Your task to perform on an android device: change your default location settings in chrome Image 0: 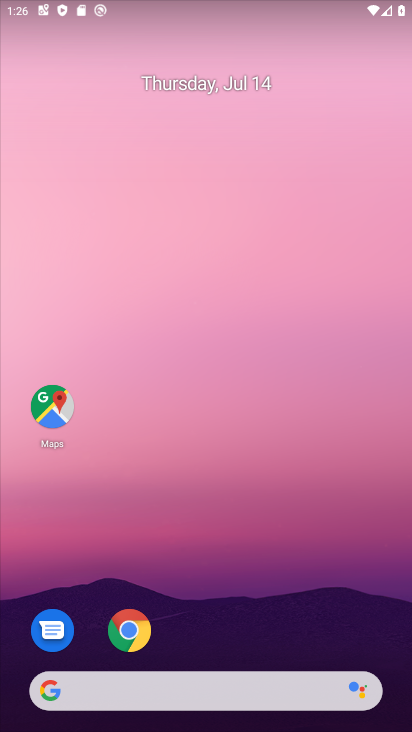
Step 0: click (138, 628)
Your task to perform on an android device: change your default location settings in chrome Image 1: 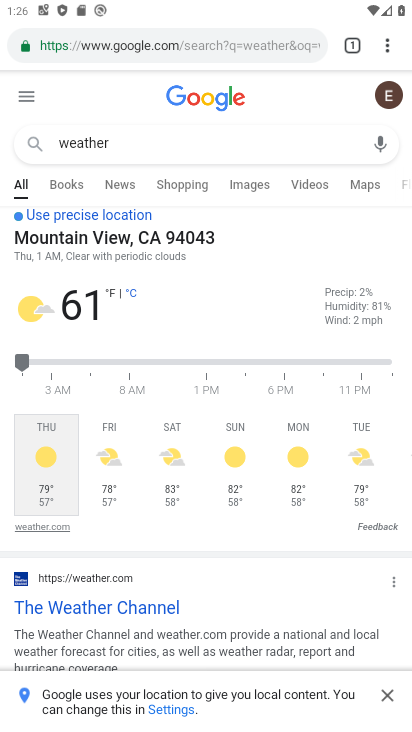
Step 1: drag from (385, 55) to (233, 502)
Your task to perform on an android device: change your default location settings in chrome Image 2: 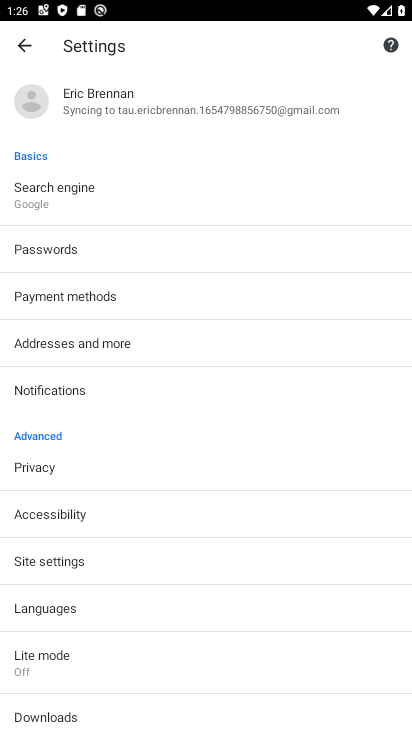
Step 2: click (85, 558)
Your task to perform on an android device: change your default location settings in chrome Image 3: 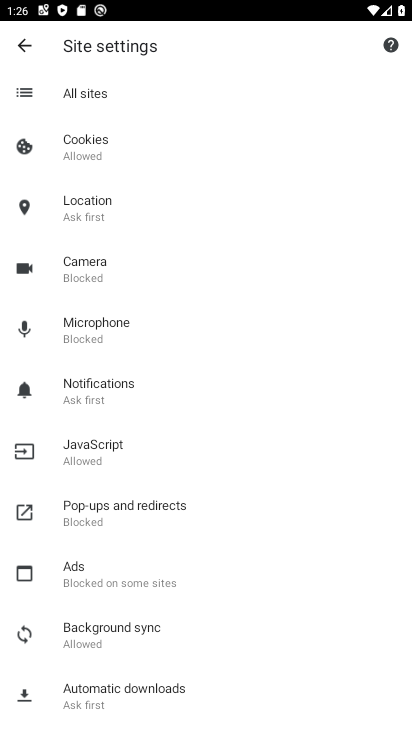
Step 3: click (120, 212)
Your task to perform on an android device: change your default location settings in chrome Image 4: 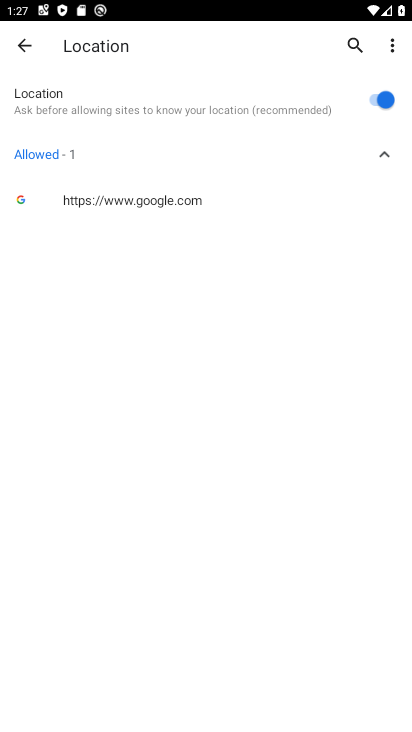
Step 4: click (382, 100)
Your task to perform on an android device: change your default location settings in chrome Image 5: 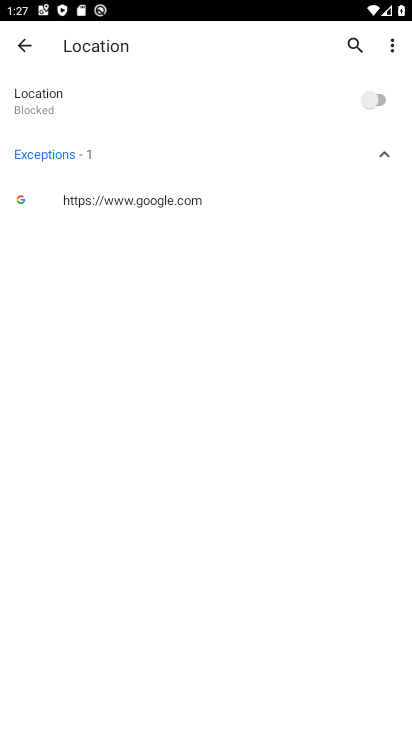
Step 5: task complete